Your task to perform on an android device: turn off improve location accuracy Image 0: 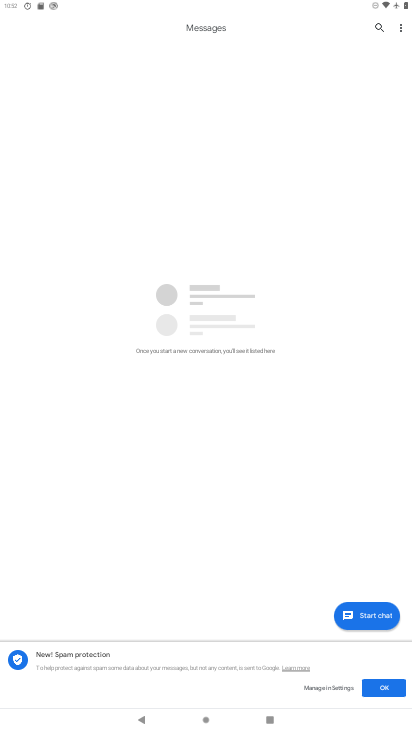
Step 0: press back button
Your task to perform on an android device: turn off improve location accuracy Image 1: 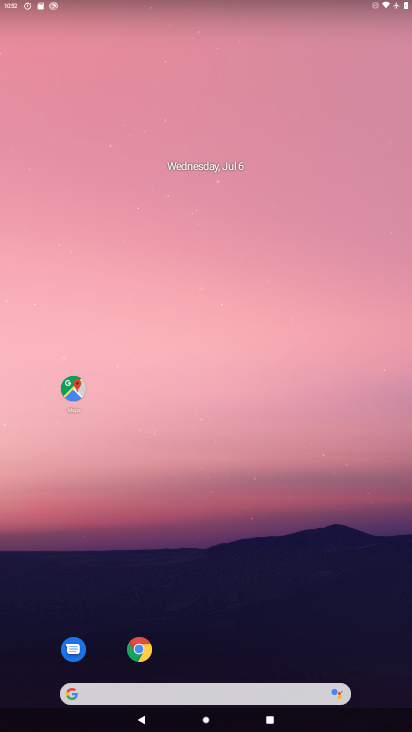
Step 1: drag from (371, 647) to (327, 30)
Your task to perform on an android device: turn off improve location accuracy Image 2: 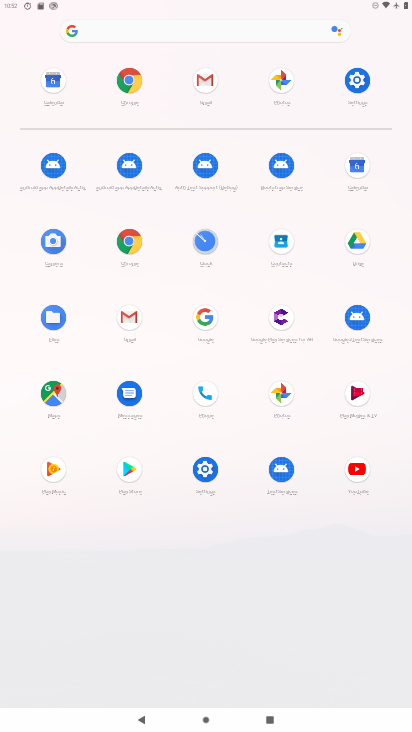
Step 2: click (357, 78)
Your task to perform on an android device: turn off improve location accuracy Image 3: 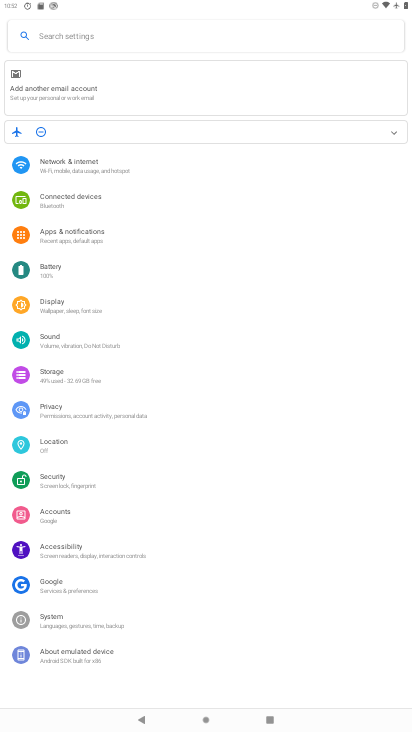
Step 3: click (42, 443)
Your task to perform on an android device: turn off improve location accuracy Image 4: 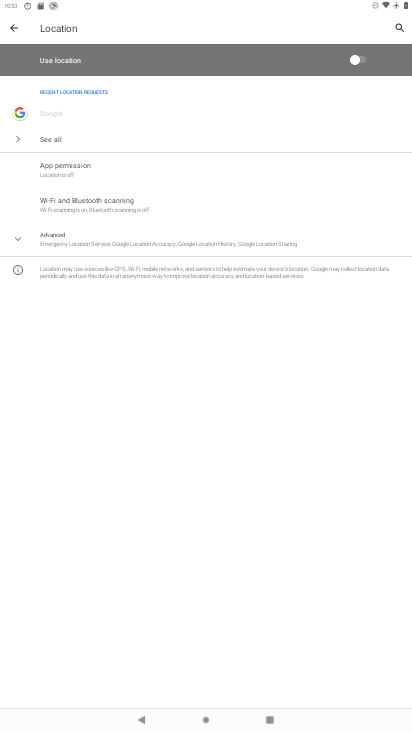
Step 4: click (19, 242)
Your task to perform on an android device: turn off improve location accuracy Image 5: 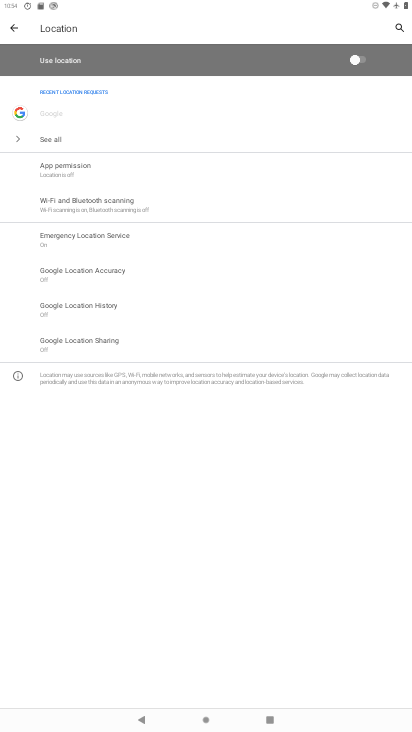
Step 5: click (108, 273)
Your task to perform on an android device: turn off improve location accuracy Image 6: 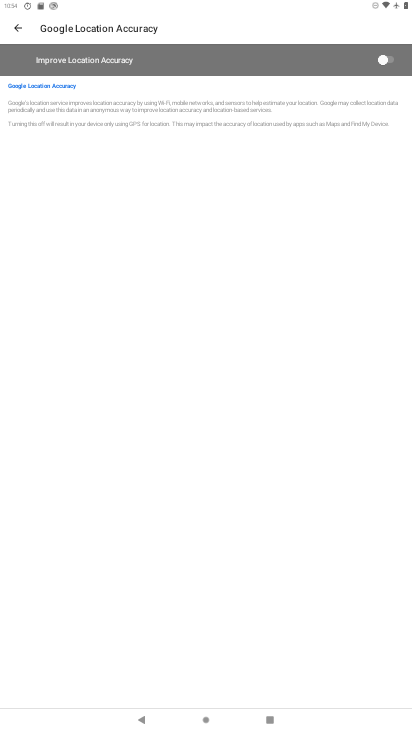
Step 6: task complete